Your task to perform on an android device: What is the news today? Image 0: 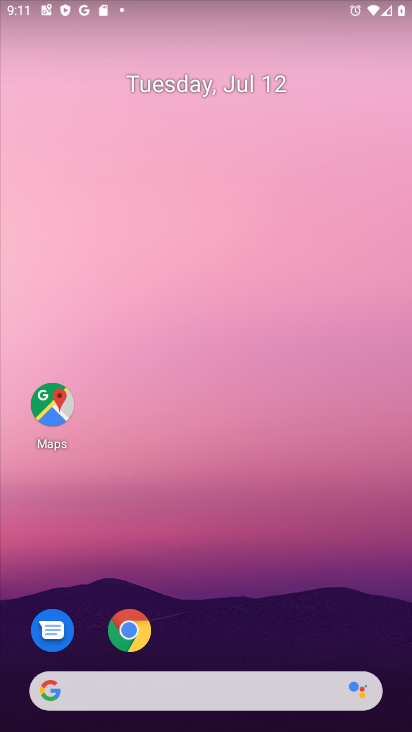
Step 0: drag from (195, 626) to (215, 100)
Your task to perform on an android device: What is the news today? Image 1: 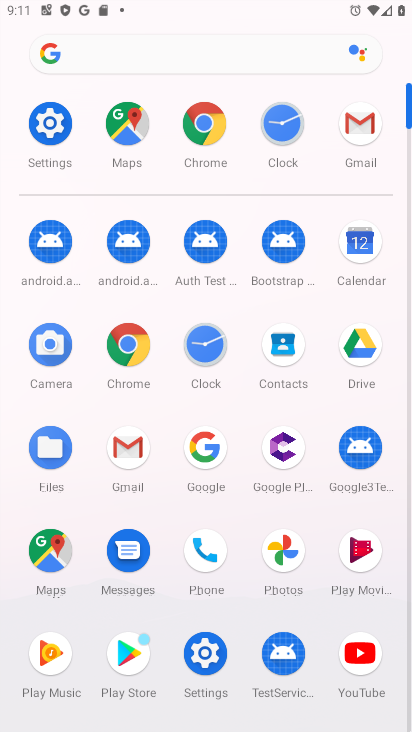
Step 1: click (208, 451)
Your task to perform on an android device: What is the news today? Image 2: 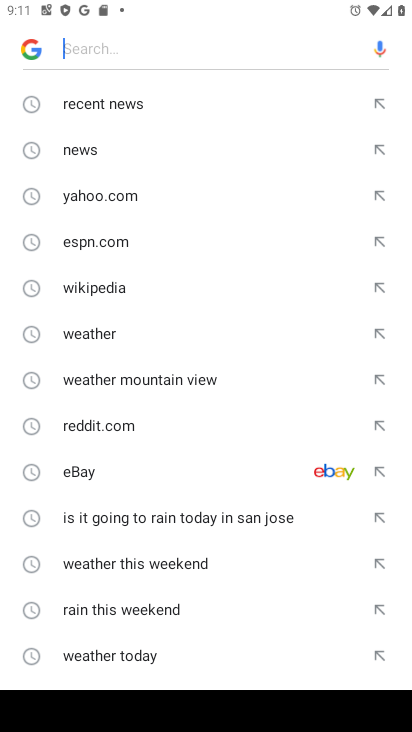
Step 2: type "news today"
Your task to perform on an android device: What is the news today? Image 3: 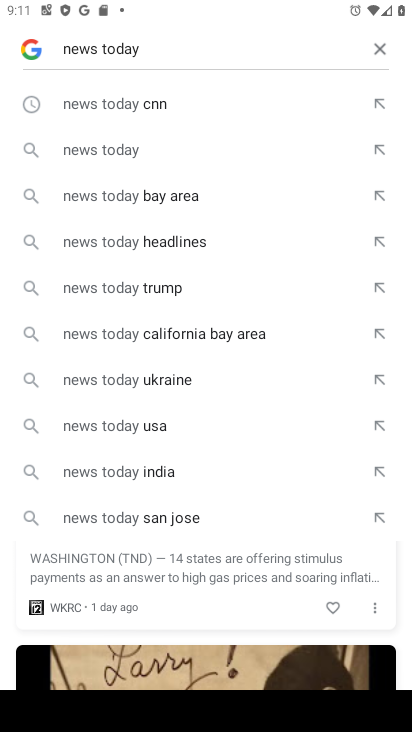
Step 3: click (138, 153)
Your task to perform on an android device: What is the news today? Image 4: 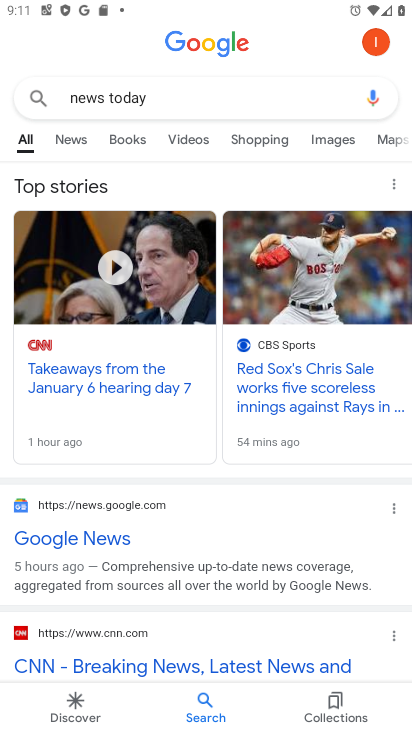
Step 4: task complete